Your task to perform on an android device: Open settings on Google Maps Image 0: 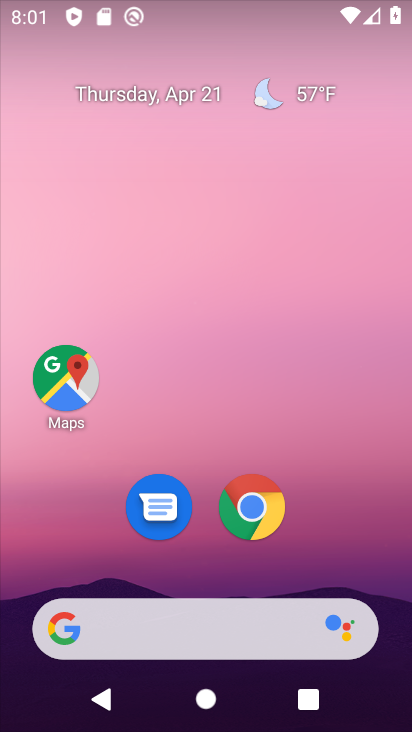
Step 0: click (63, 396)
Your task to perform on an android device: Open settings on Google Maps Image 1: 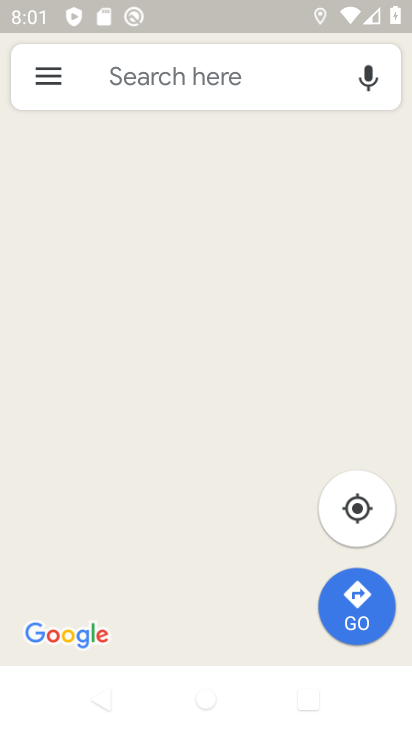
Step 1: click (46, 76)
Your task to perform on an android device: Open settings on Google Maps Image 2: 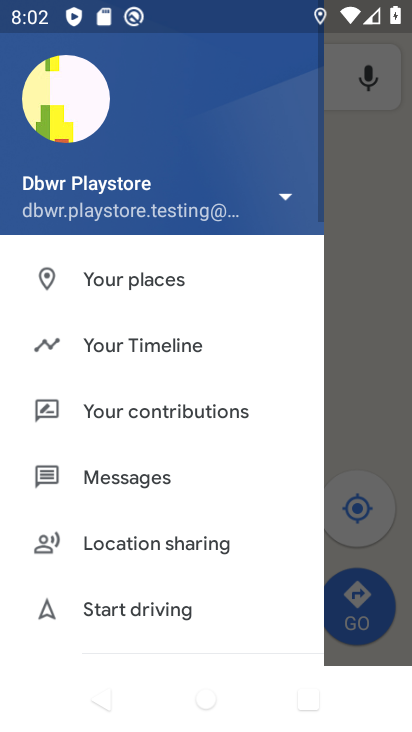
Step 2: click (150, 352)
Your task to perform on an android device: Open settings on Google Maps Image 3: 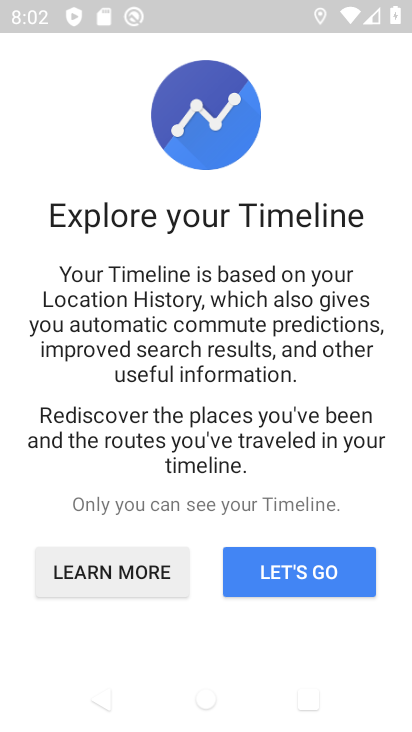
Step 3: click (286, 568)
Your task to perform on an android device: Open settings on Google Maps Image 4: 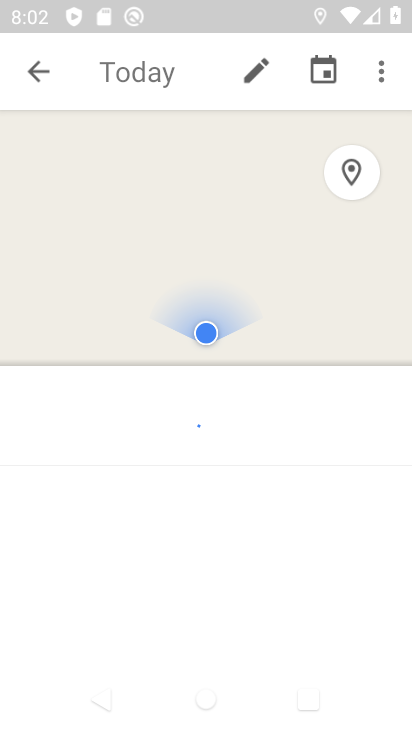
Step 4: click (375, 80)
Your task to perform on an android device: Open settings on Google Maps Image 5: 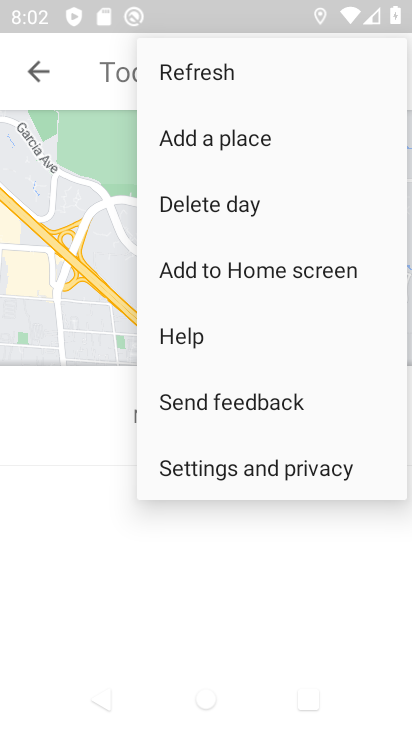
Step 5: click (236, 473)
Your task to perform on an android device: Open settings on Google Maps Image 6: 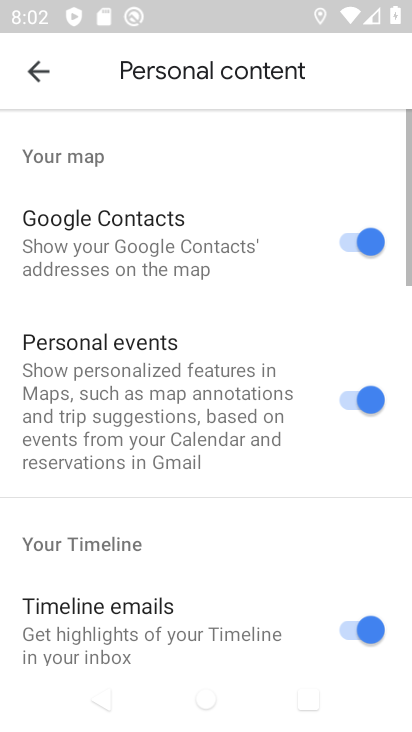
Step 6: task complete